Your task to perform on an android device: open app "Truecaller" (install if not already installed) Image 0: 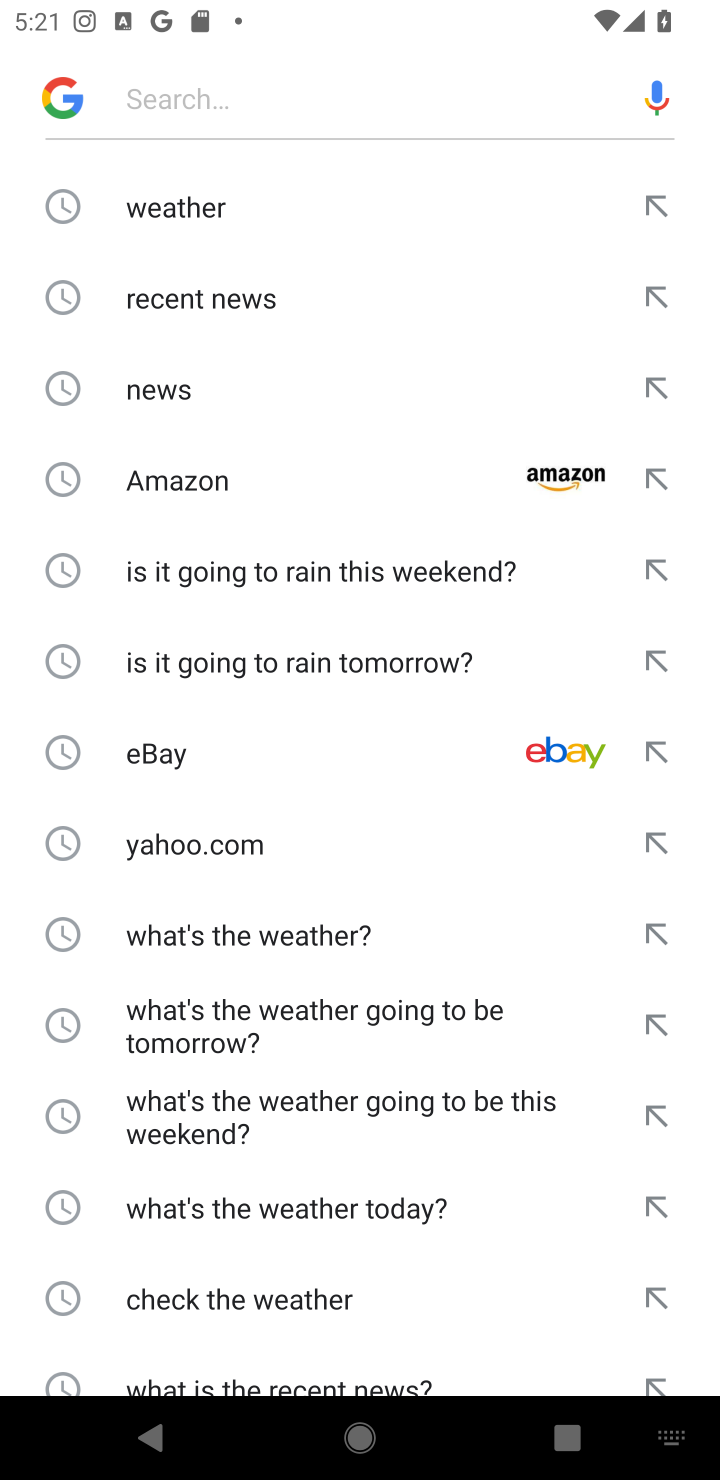
Step 0: press home button
Your task to perform on an android device: open app "Truecaller" (install if not already installed) Image 1: 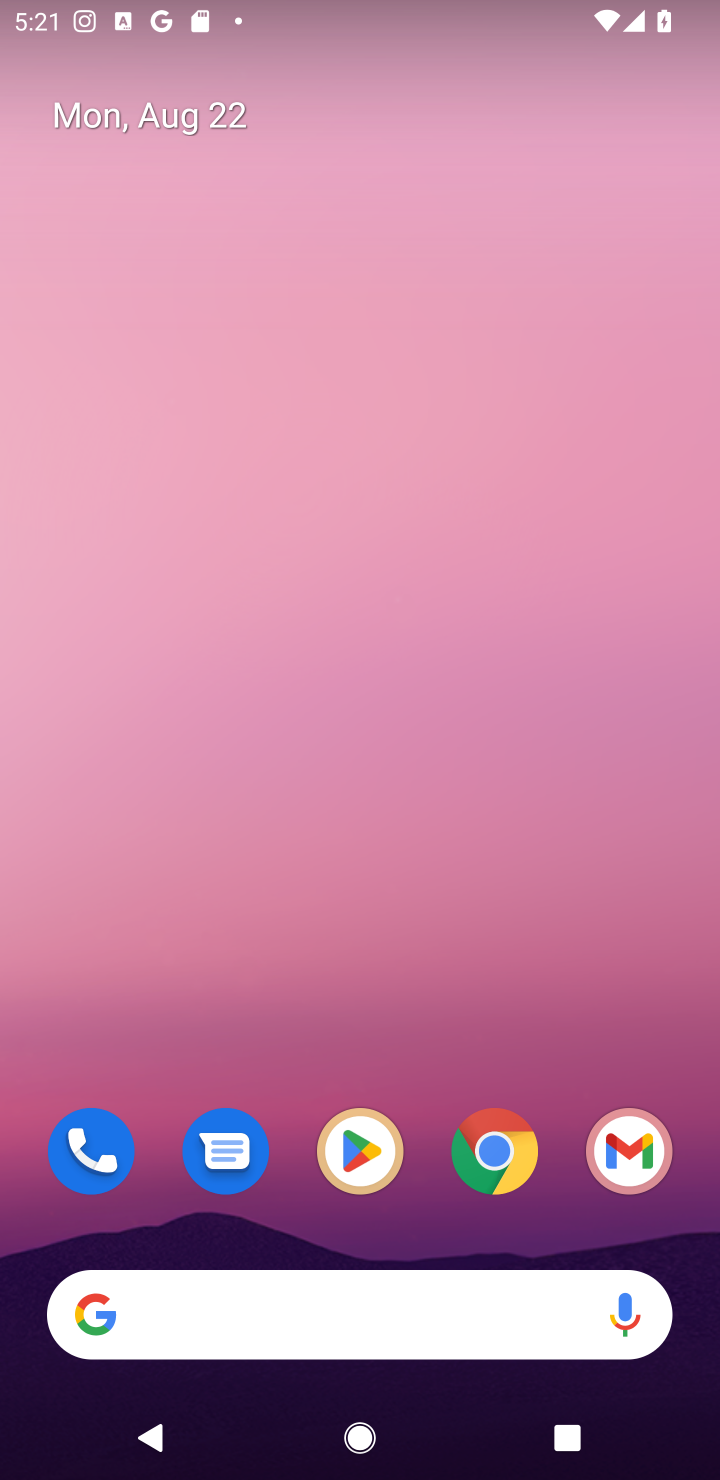
Step 1: click (353, 1155)
Your task to perform on an android device: open app "Truecaller" (install if not already installed) Image 2: 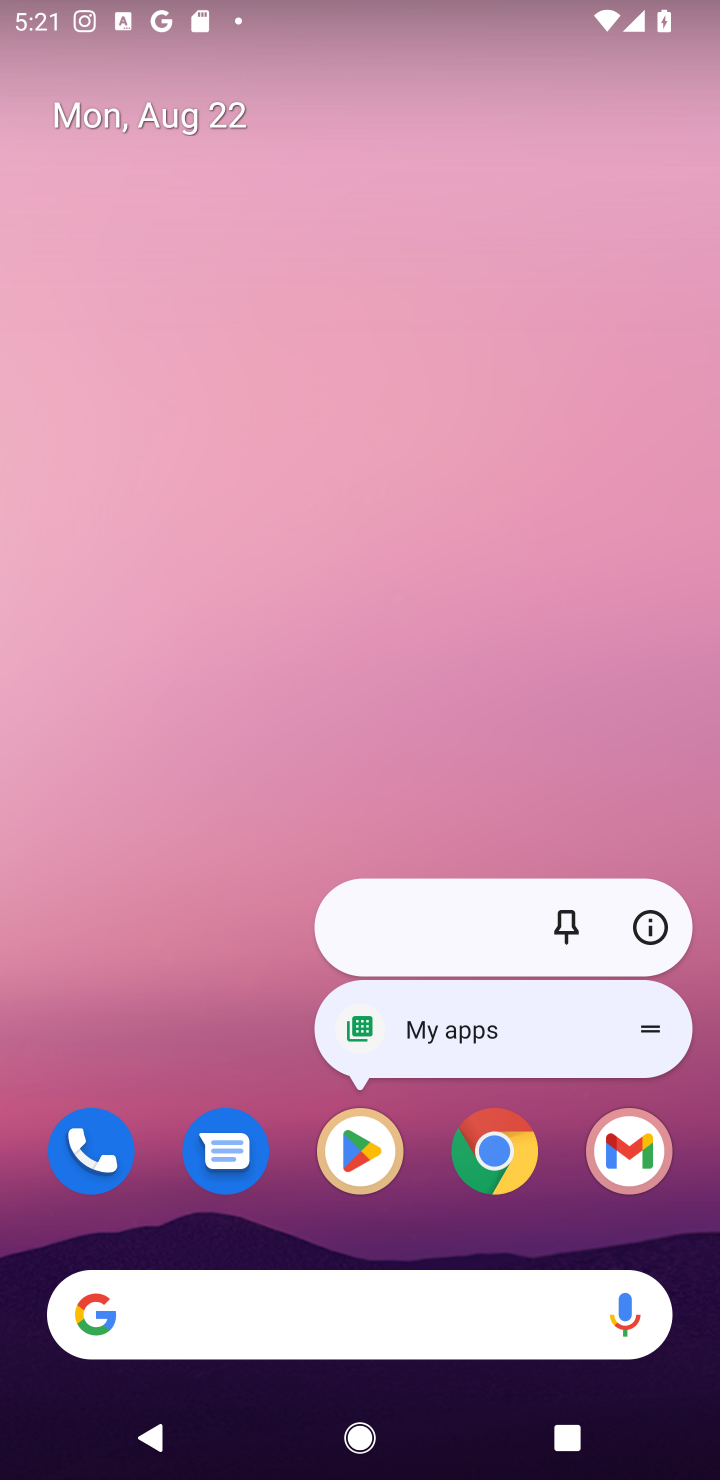
Step 2: click (355, 1162)
Your task to perform on an android device: open app "Truecaller" (install if not already installed) Image 3: 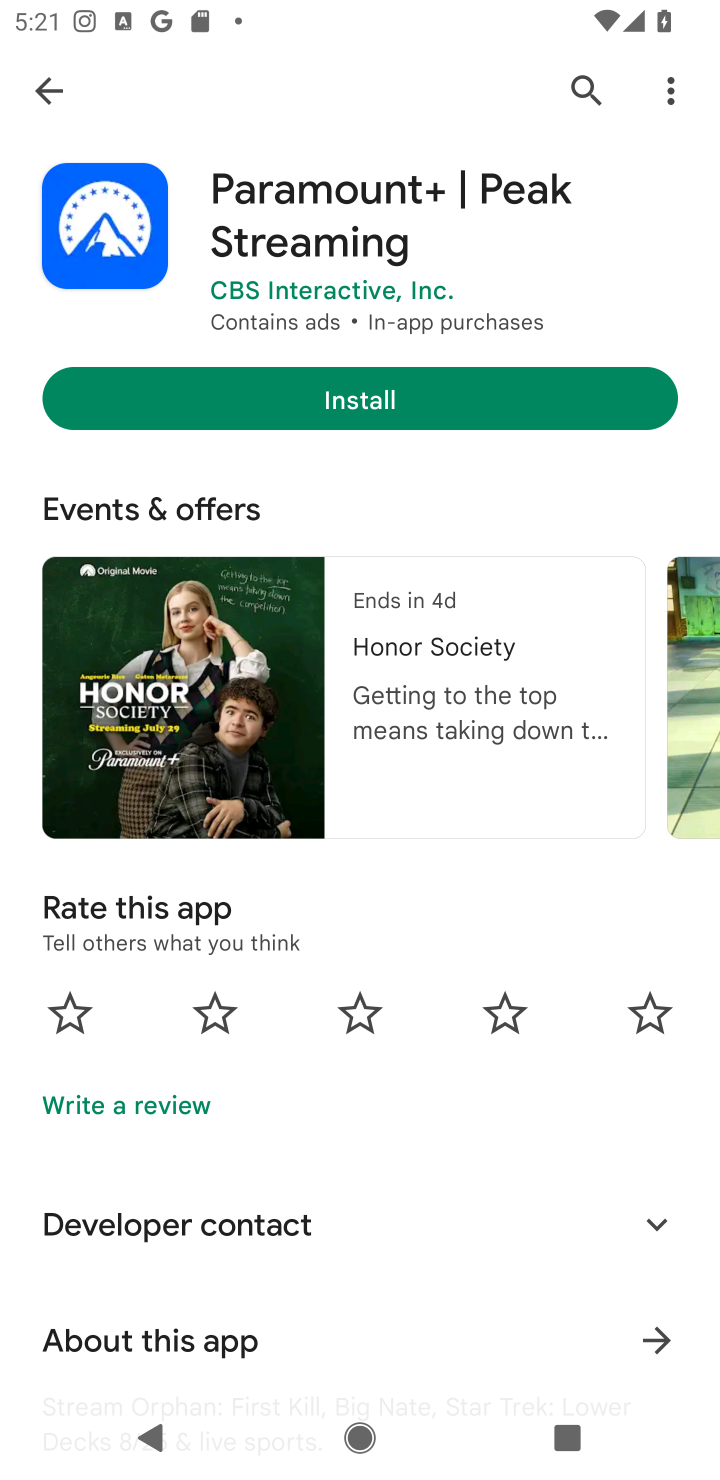
Step 3: click (579, 62)
Your task to perform on an android device: open app "Truecaller" (install if not already installed) Image 4: 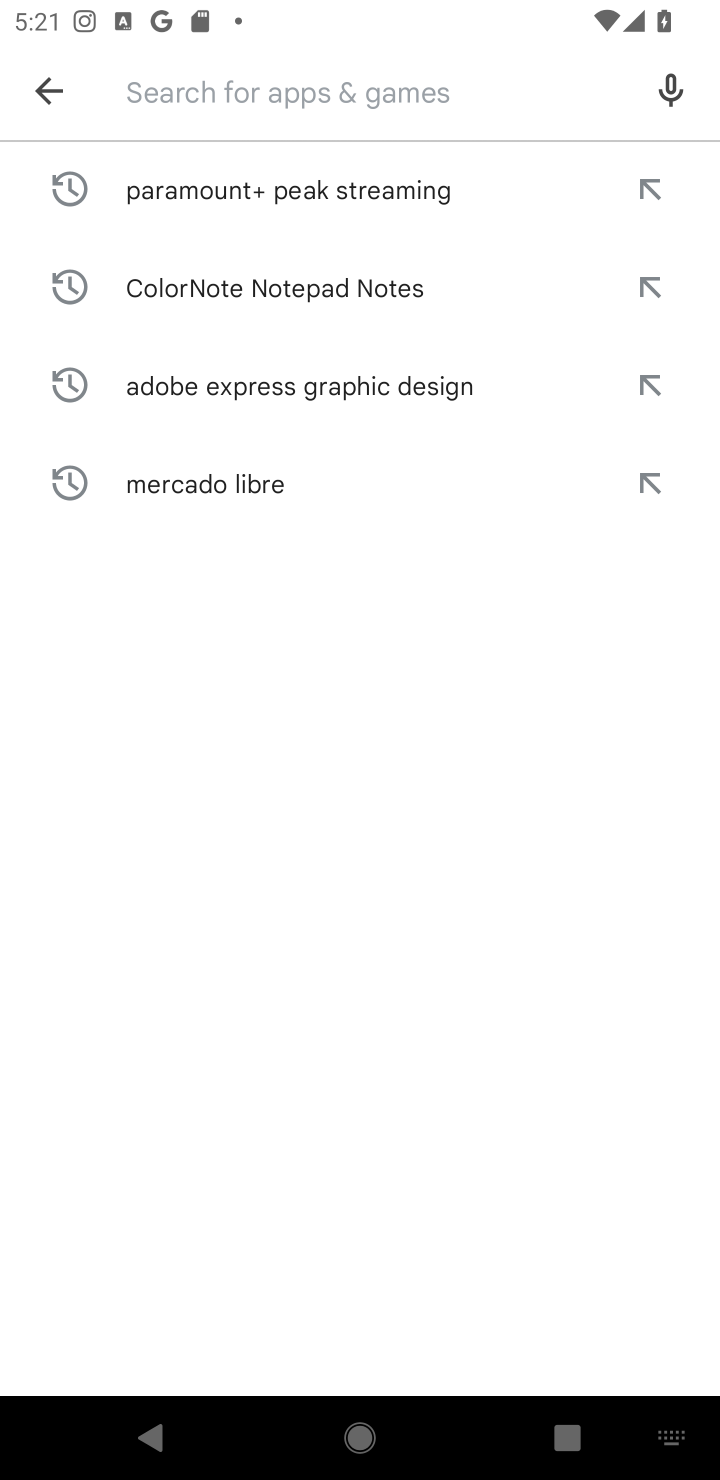
Step 4: type "Truecaller"
Your task to perform on an android device: open app "Truecaller" (install if not already installed) Image 5: 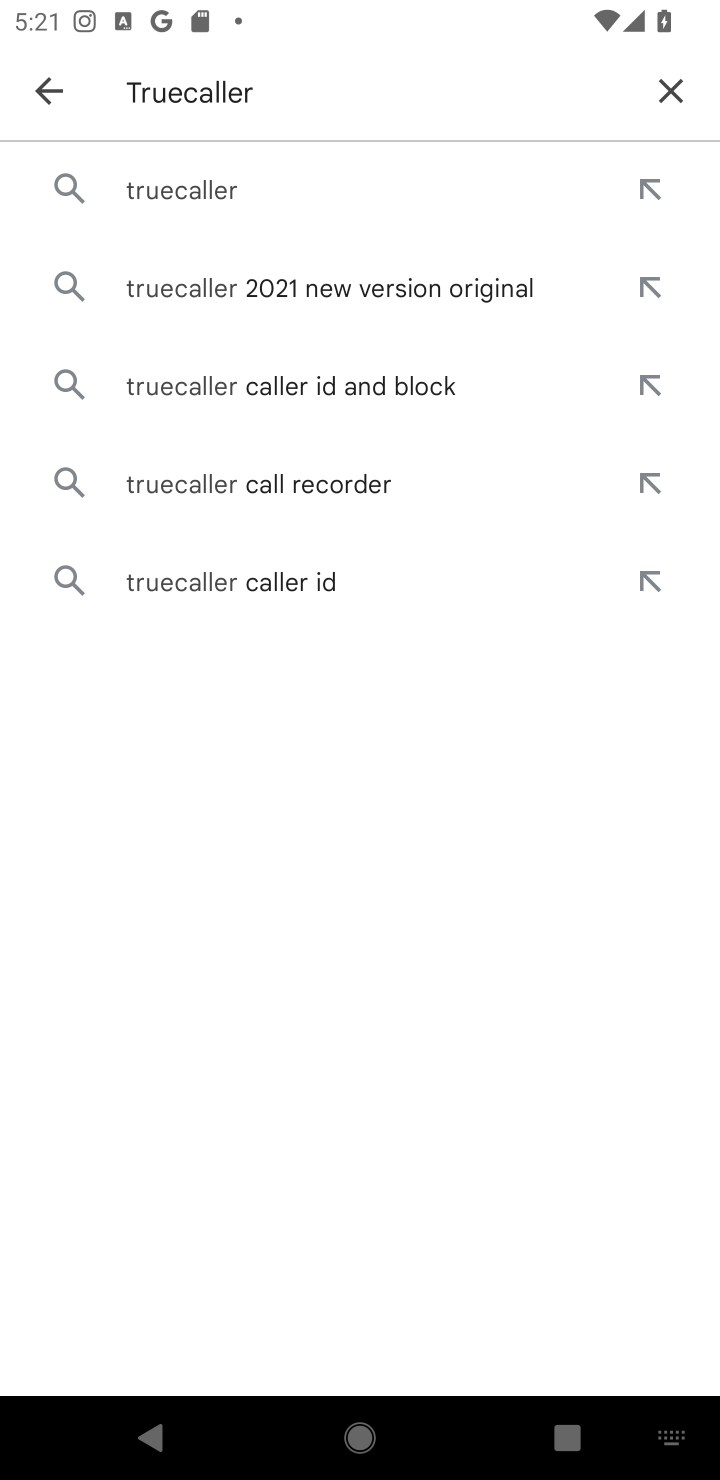
Step 5: click (209, 190)
Your task to perform on an android device: open app "Truecaller" (install if not already installed) Image 6: 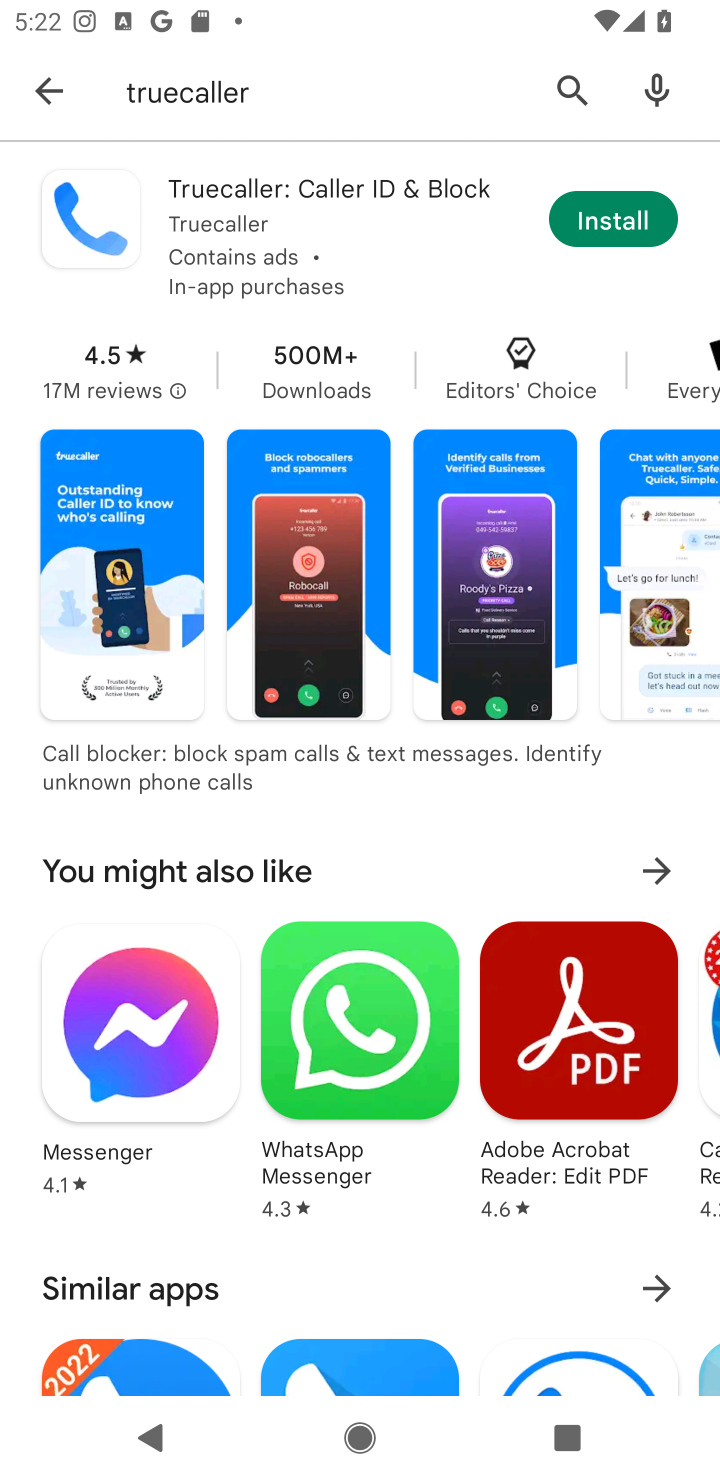
Step 6: click (616, 219)
Your task to perform on an android device: open app "Truecaller" (install if not already installed) Image 7: 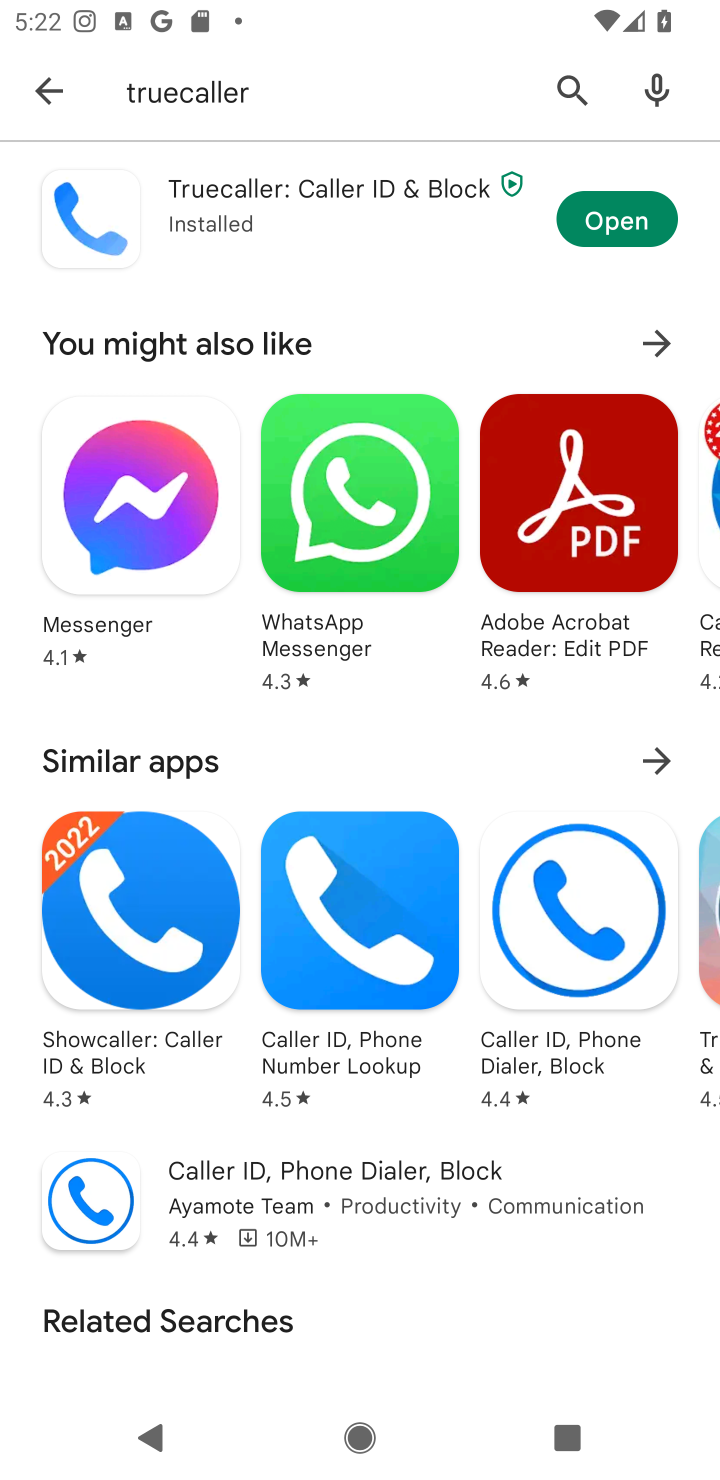
Step 7: click (632, 200)
Your task to perform on an android device: open app "Truecaller" (install if not already installed) Image 8: 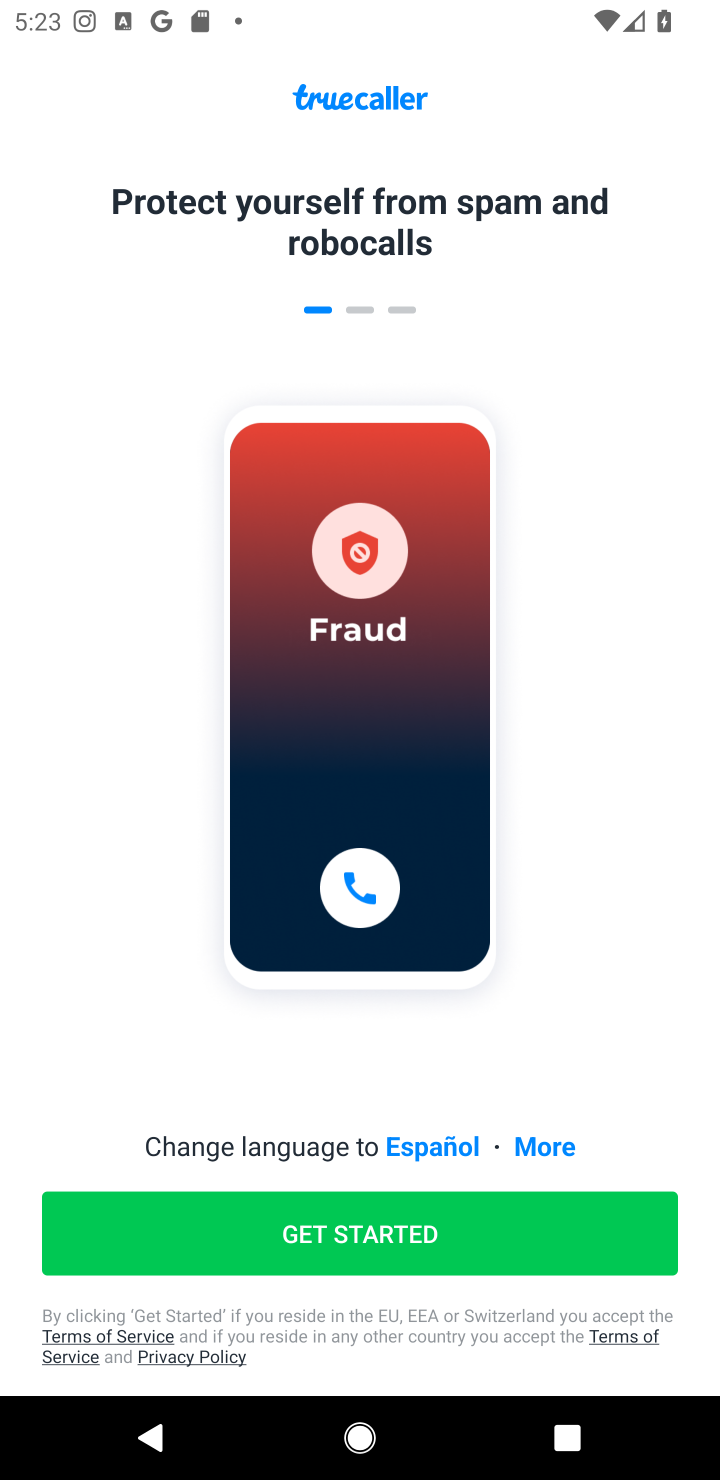
Step 8: task complete